Your task to perform on an android device: set default search engine in the chrome app Image 0: 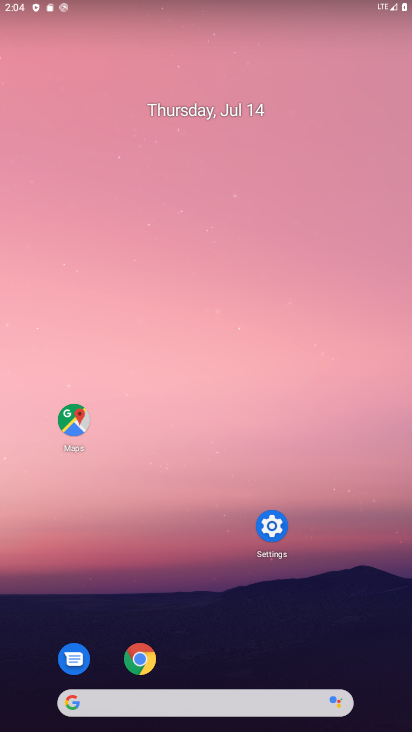
Step 0: press home button
Your task to perform on an android device: set default search engine in the chrome app Image 1: 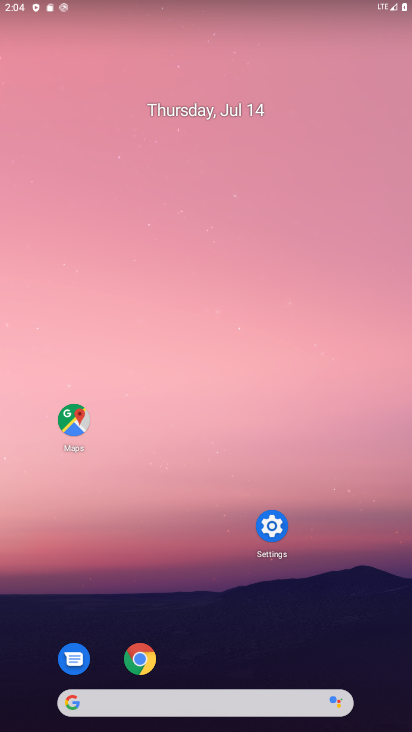
Step 1: click (126, 658)
Your task to perform on an android device: set default search engine in the chrome app Image 2: 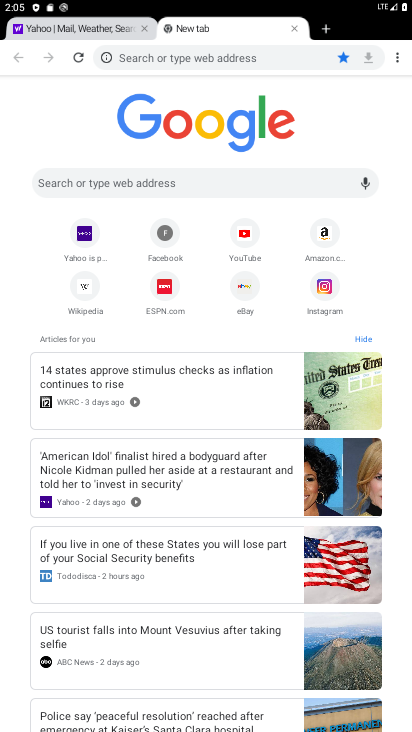
Step 2: click (394, 62)
Your task to perform on an android device: set default search engine in the chrome app Image 3: 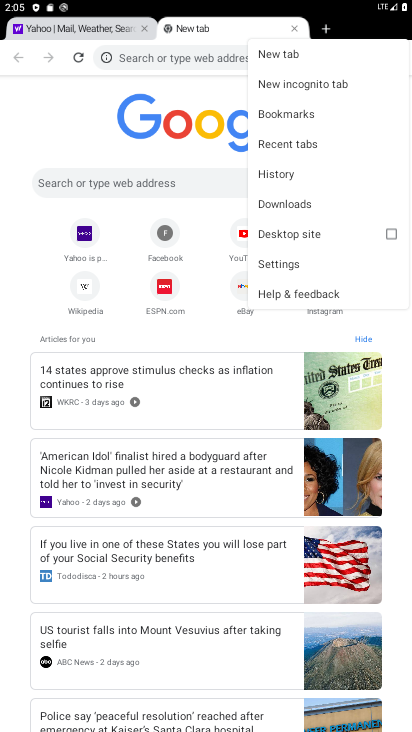
Step 3: click (279, 258)
Your task to perform on an android device: set default search engine in the chrome app Image 4: 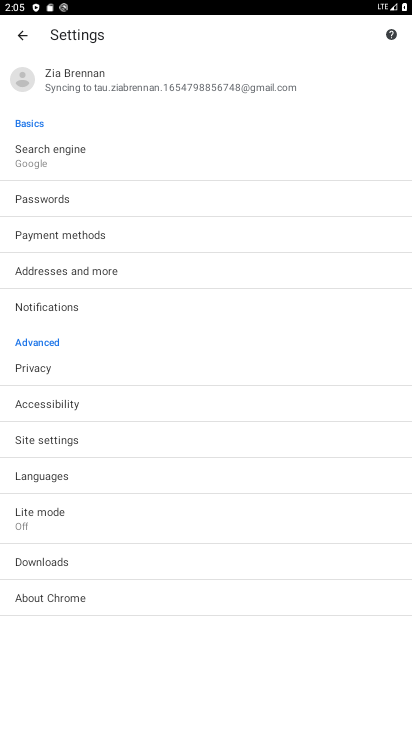
Step 4: click (39, 174)
Your task to perform on an android device: set default search engine in the chrome app Image 5: 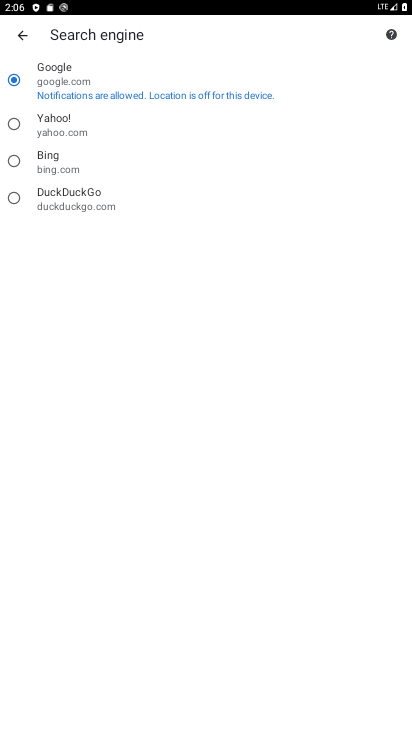
Step 5: task complete